Your task to perform on an android device: toggle notifications settings in the gmail app Image 0: 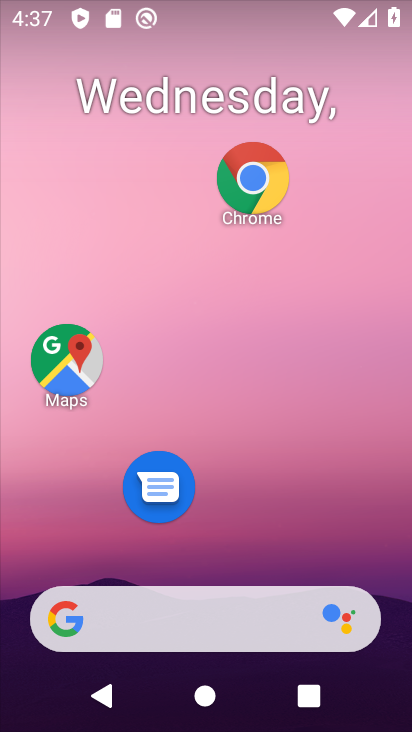
Step 0: drag from (325, 504) to (244, 171)
Your task to perform on an android device: toggle notifications settings in the gmail app Image 1: 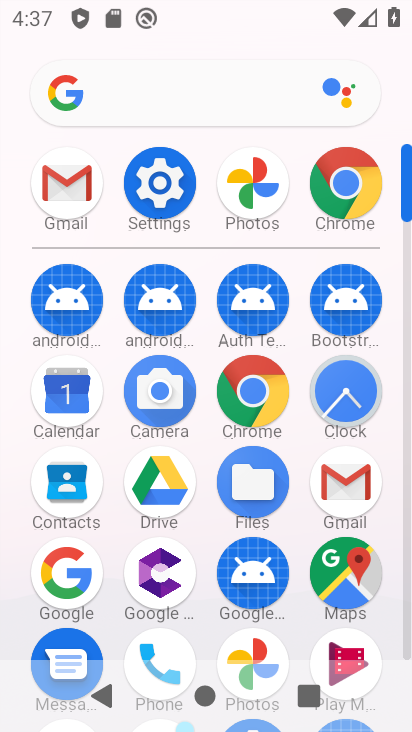
Step 1: click (79, 175)
Your task to perform on an android device: toggle notifications settings in the gmail app Image 2: 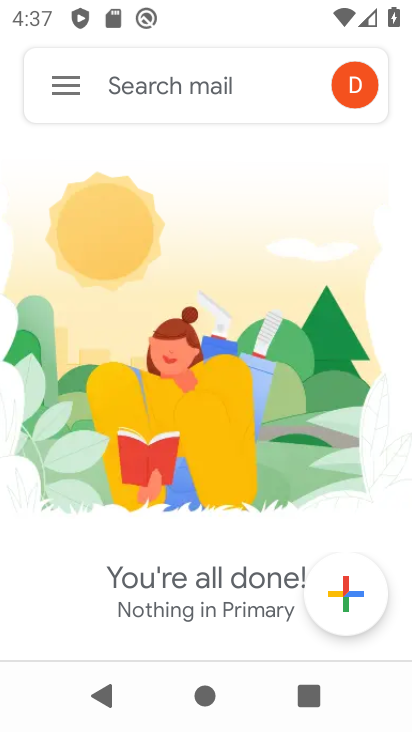
Step 2: click (75, 97)
Your task to perform on an android device: toggle notifications settings in the gmail app Image 3: 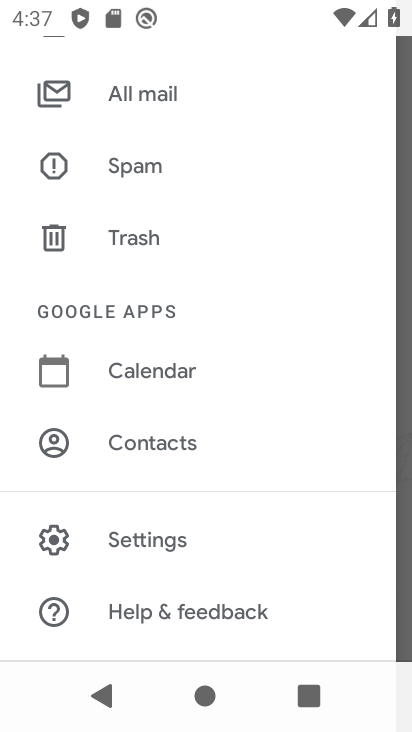
Step 3: click (208, 551)
Your task to perform on an android device: toggle notifications settings in the gmail app Image 4: 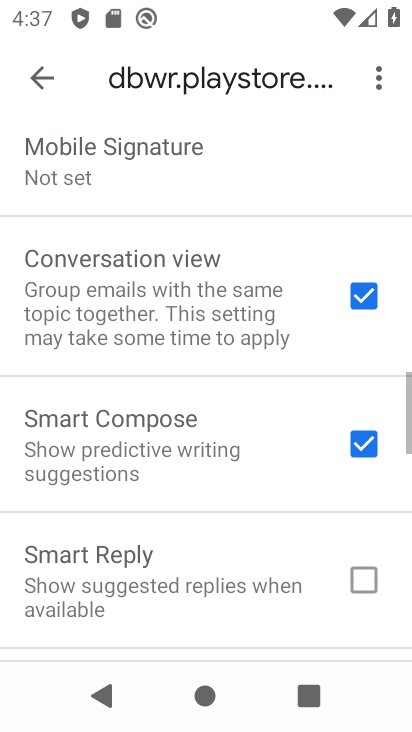
Step 4: drag from (214, 534) to (312, 710)
Your task to perform on an android device: toggle notifications settings in the gmail app Image 5: 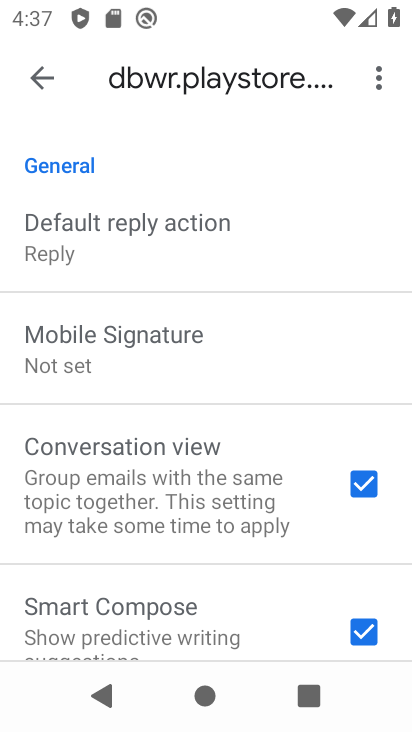
Step 5: drag from (177, 244) to (204, 722)
Your task to perform on an android device: toggle notifications settings in the gmail app Image 6: 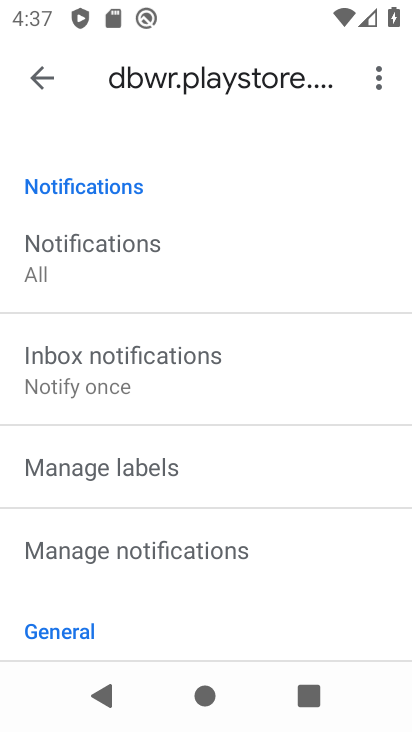
Step 6: click (136, 568)
Your task to perform on an android device: toggle notifications settings in the gmail app Image 7: 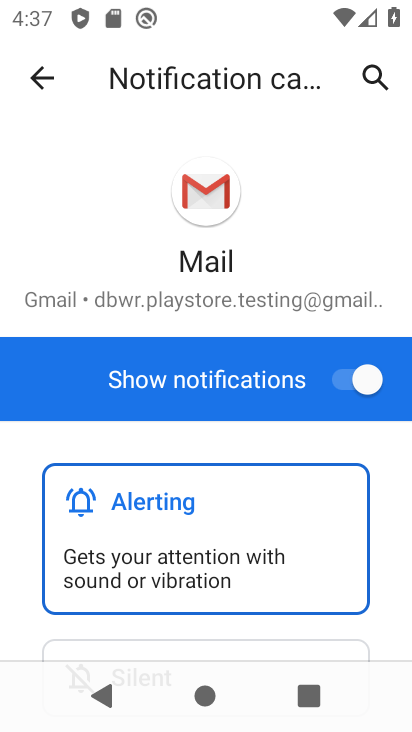
Step 7: click (376, 373)
Your task to perform on an android device: toggle notifications settings in the gmail app Image 8: 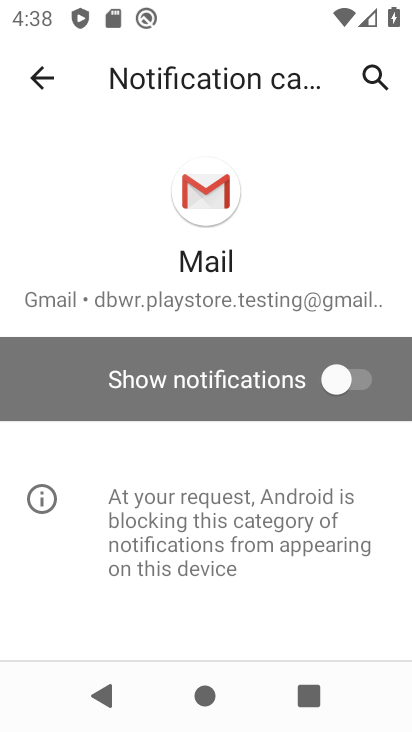
Step 8: task complete